Your task to perform on an android device: Open the map Image 0: 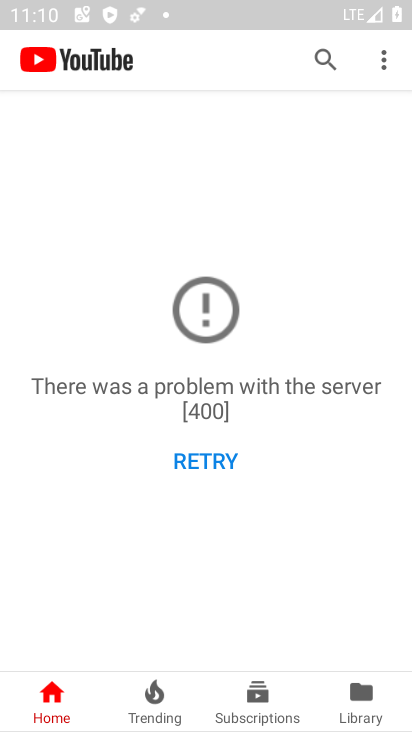
Step 0: press home button
Your task to perform on an android device: Open the map Image 1: 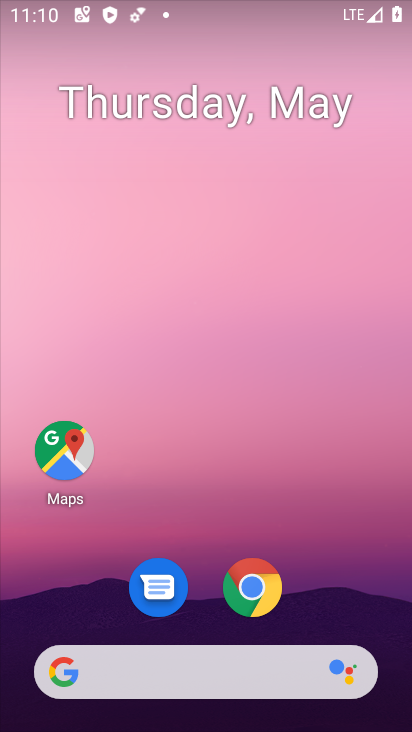
Step 1: click (50, 428)
Your task to perform on an android device: Open the map Image 2: 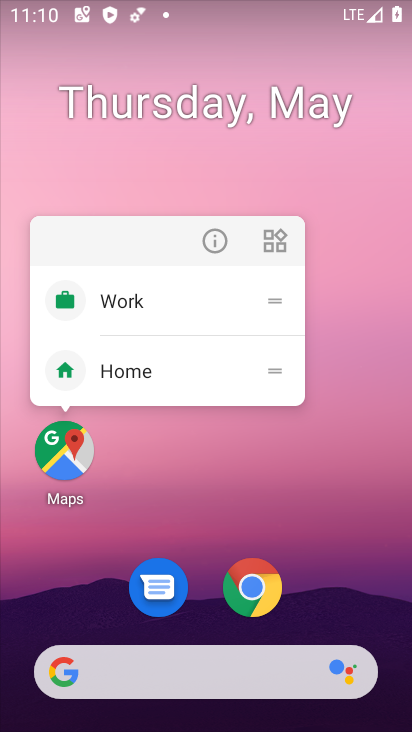
Step 2: click (50, 428)
Your task to perform on an android device: Open the map Image 3: 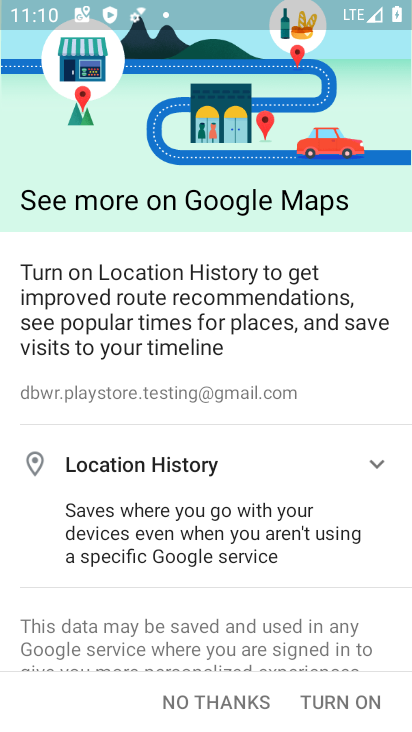
Step 3: click (252, 703)
Your task to perform on an android device: Open the map Image 4: 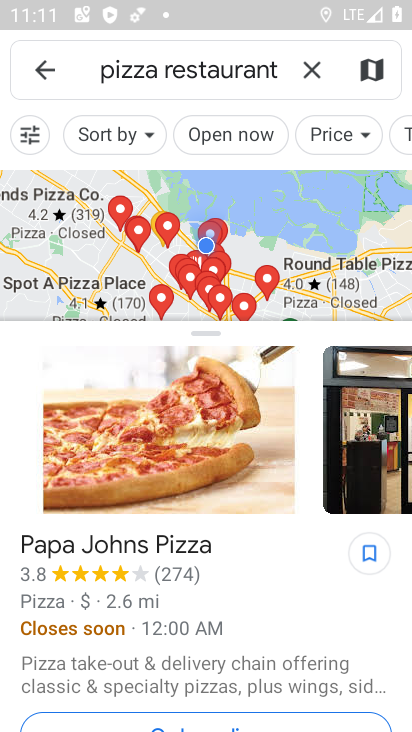
Step 4: task complete